Your task to perform on an android device: What is the recent news? Image 0: 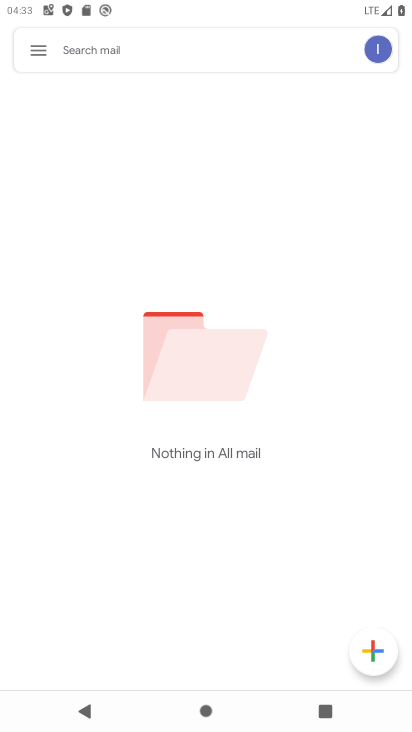
Step 0: press home button
Your task to perform on an android device: What is the recent news? Image 1: 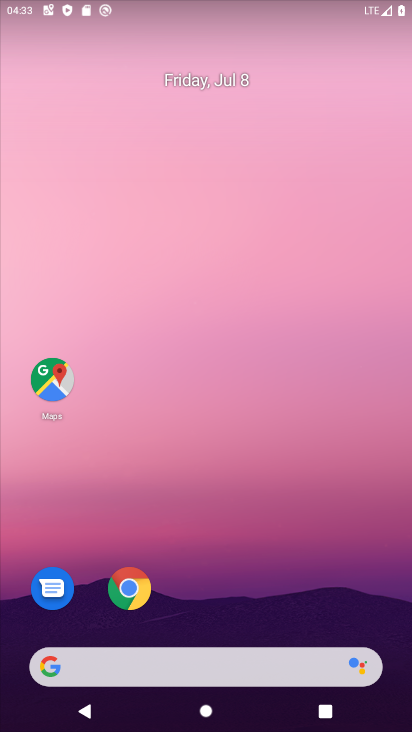
Step 1: drag from (163, 445) to (160, 114)
Your task to perform on an android device: What is the recent news? Image 2: 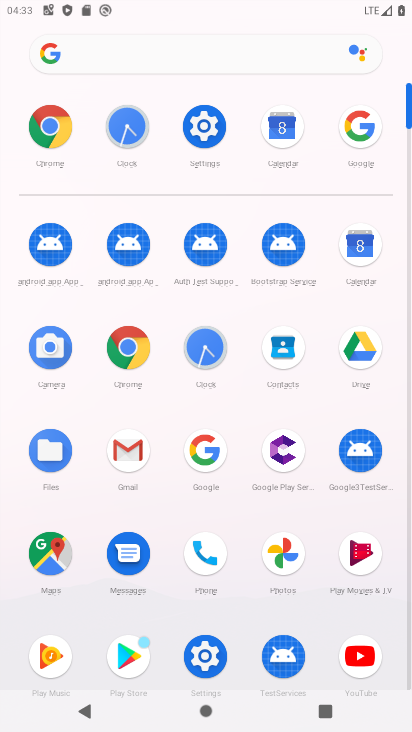
Step 2: click (202, 457)
Your task to perform on an android device: What is the recent news? Image 3: 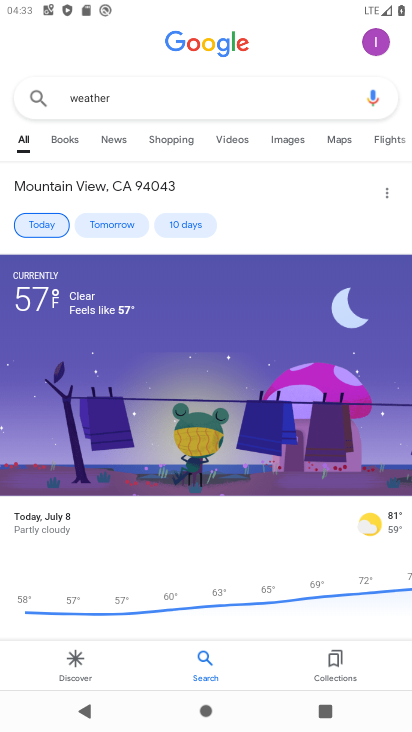
Step 3: click (176, 102)
Your task to perform on an android device: What is the recent news? Image 4: 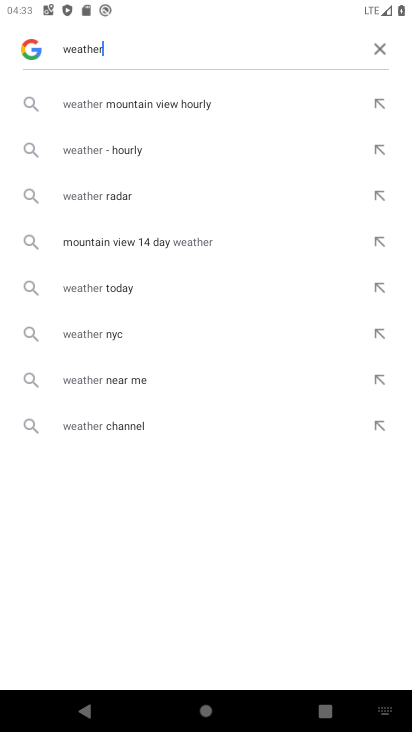
Step 4: click (382, 44)
Your task to perform on an android device: What is the recent news? Image 5: 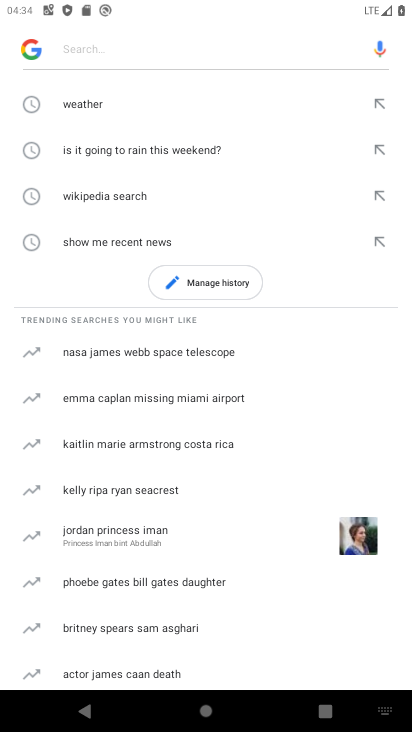
Step 5: type "recent news"
Your task to perform on an android device: What is the recent news? Image 6: 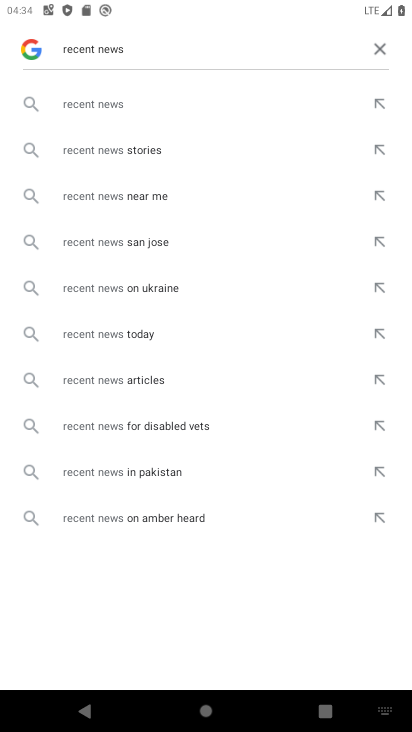
Step 6: click (112, 100)
Your task to perform on an android device: What is the recent news? Image 7: 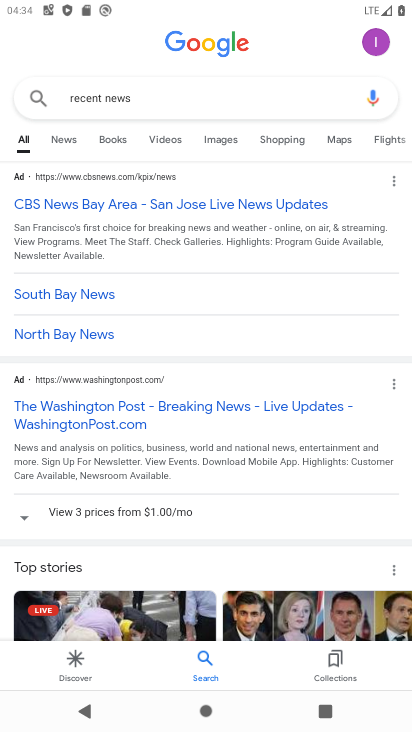
Step 7: task complete